Your task to perform on an android device: Is it going to rain today? Image 0: 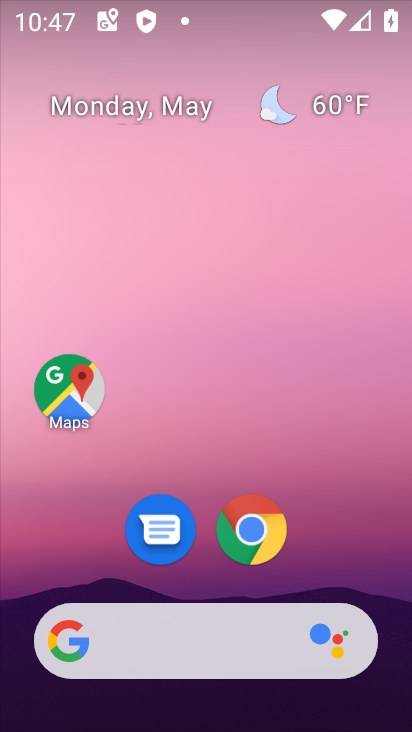
Step 0: click (214, 619)
Your task to perform on an android device: Is it going to rain today? Image 1: 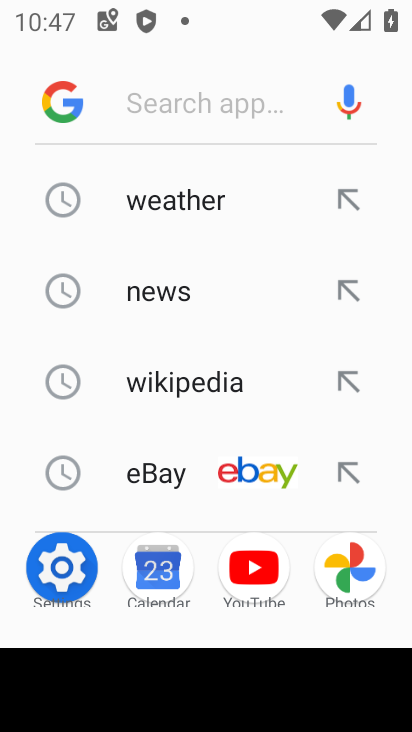
Step 1: click (161, 198)
Your task to perform on an android device: Is it going to rain today? Image 2: 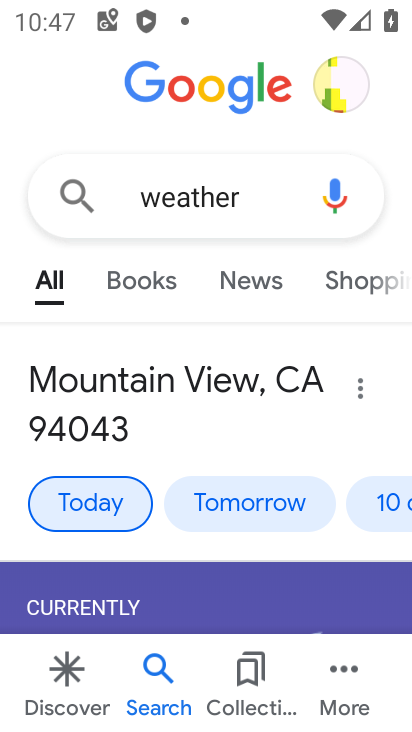
Step 2: task complete